Your task to perform on an android device: Go to ESPN.com Image 0: 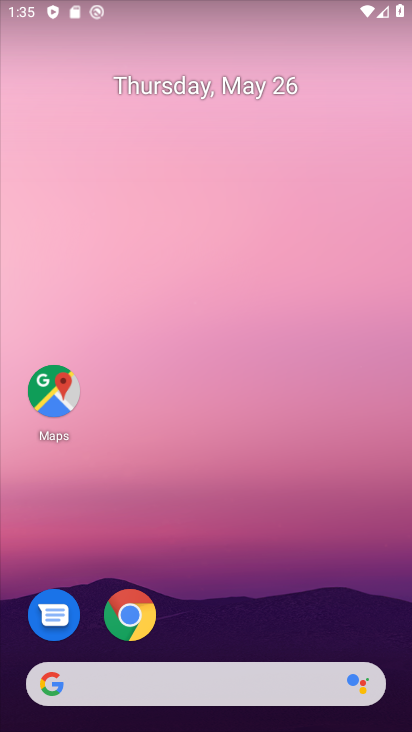
Step 0: press home button
Your task to perform on an android device: Go to ESPN.com Image 1: 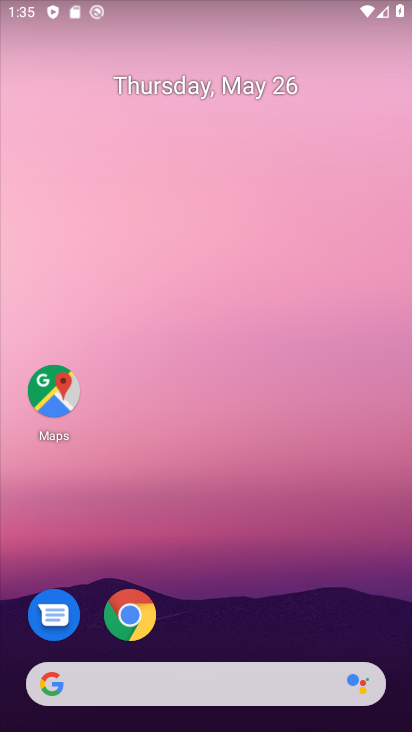
Step 1: drag from (209, 634) to (241, 97)
Your task to perform on an android device: Go to ESPN.com Image 2: 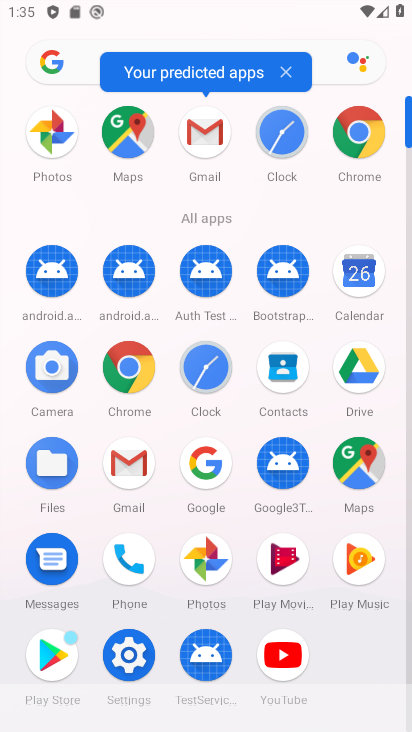
Step 2: click (360, 264)
Your task to perform on an android device: Go to ESPN.com Image 3: 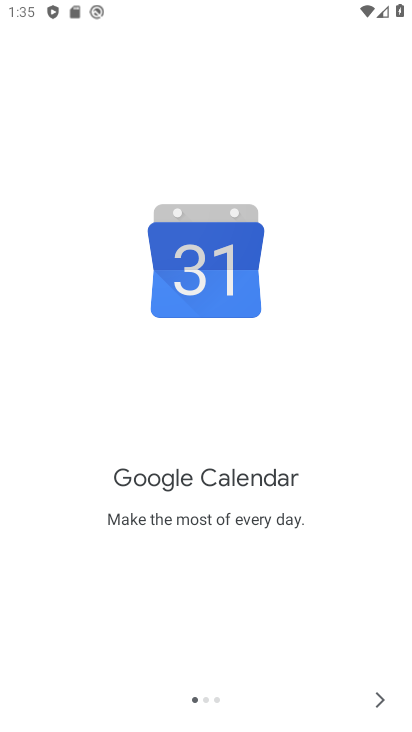
Step 3: press home button
Your task to perform on an android device: Go to ESPN.com Image 4: 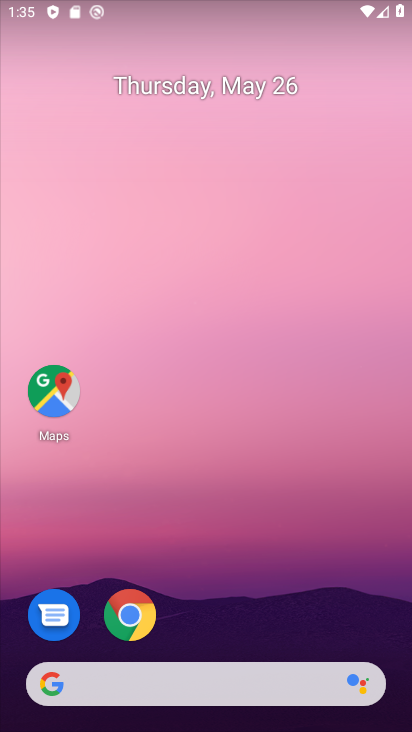
Step 4: click (131, 607)
Your task to perform on an android device: Go to ESPN.com Image 5: 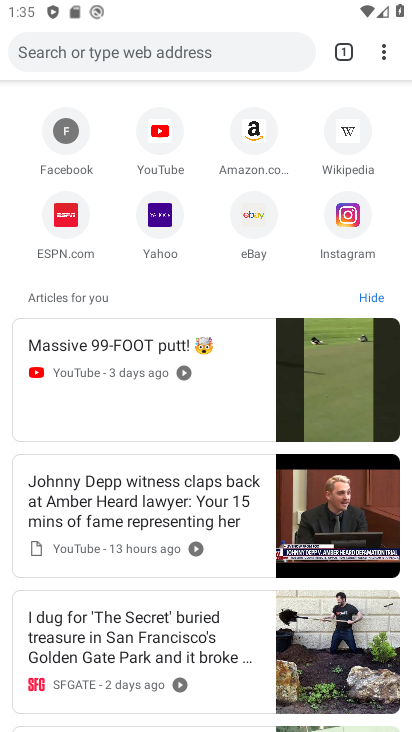
Step 5: click (64, 204)
Your task to perform on an android device: Go to ESPN.com Image 6: 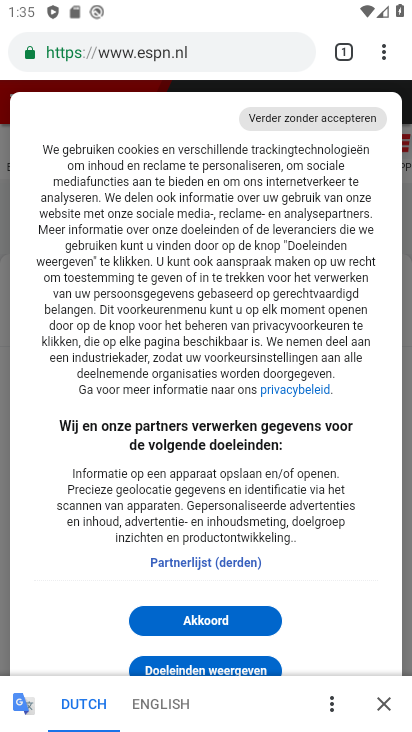
Step 6: click (206, 617)
Your task to perform on an android device: Go to ESPN.com Image 7: 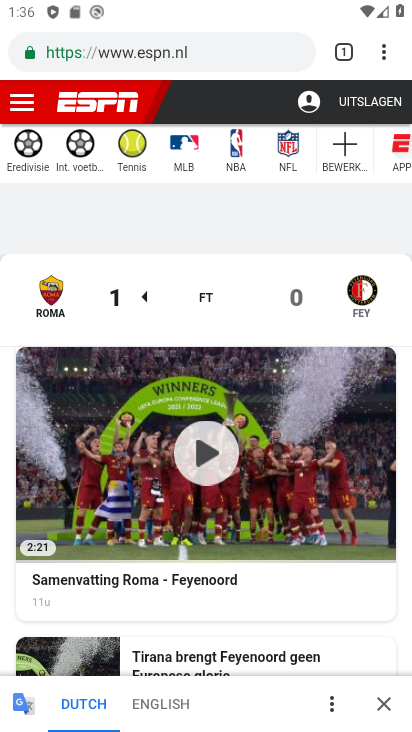
Step 7: task complete